Your task to perform on an android device: visit the assistant section in the google photos Image 0: 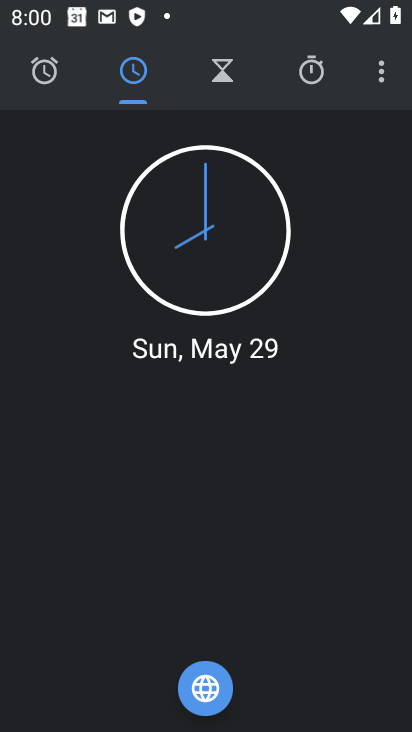
Step 0: press home button
Your task to perform on an android device: visit the assistant section in the google photos Image 1: 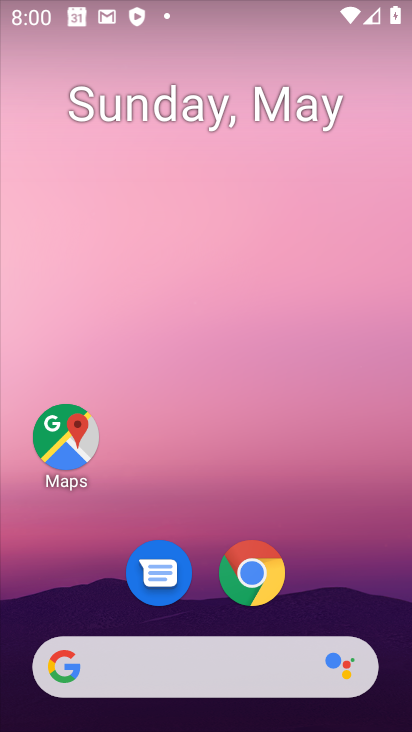
Step 1: drag from (207, 494) to (196, 1)
Your task to perform on an android device: visit the assistant section in the google photos Image 2: 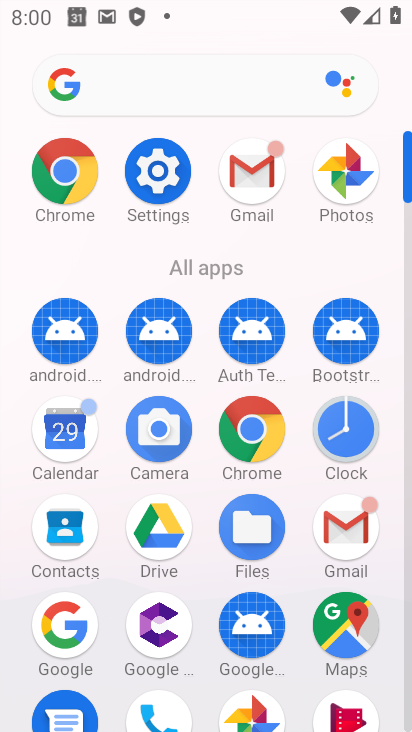
Step 2: click (341, 166)
Your task to perform on an android device: visit the assistant section in the google photos Image 3: 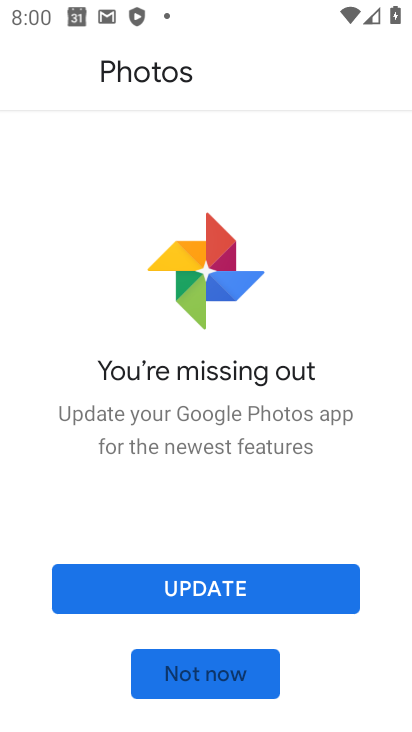
Step 3: click (255, 673)
Your task to perform on an android device: visit the assistant section in the google photos Image 4: 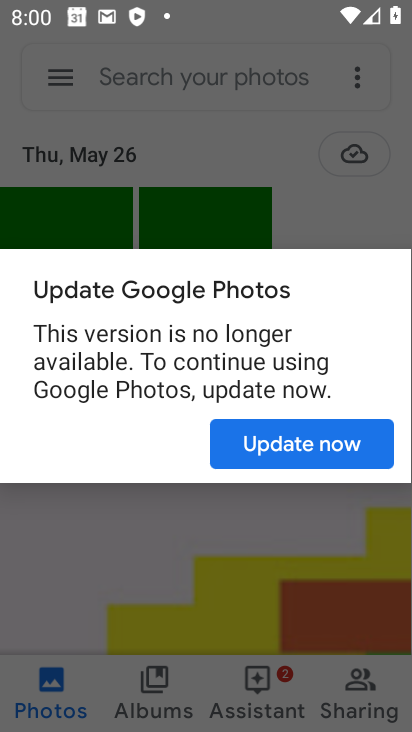
Step 4: click (319, 439)
Your task to perform on an android device: visit the assistant section in the google photos Image 5: 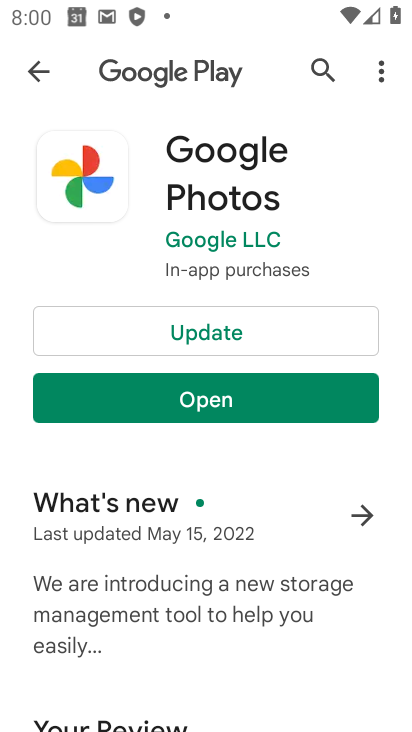
Step 5: click (316, 382)
Your task to perform on an android device: visit the assistant section in the google photos Image 6: 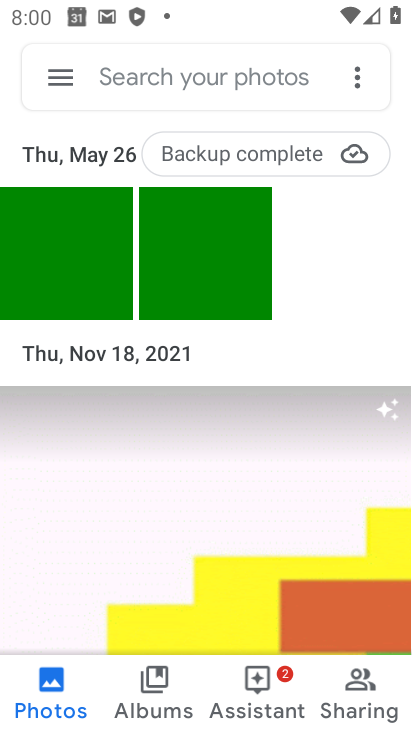
Step 6: click (266, 703)
Your task to perform on an android device: visit the assistant section in the google photos Image 7: 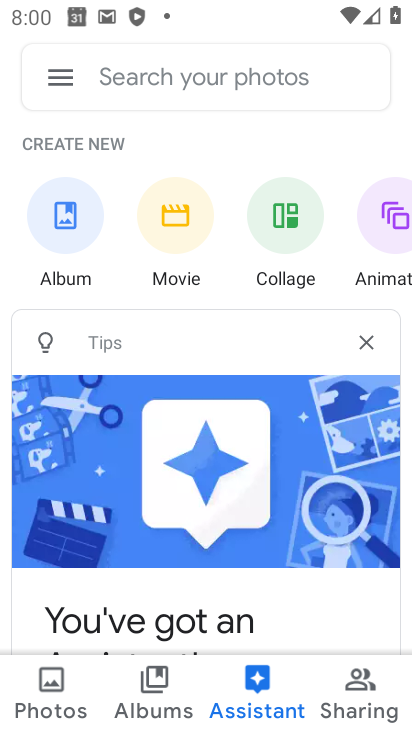
Step 7: task complete